Your task to perform on an android device: Open Google Maps and go to "Timeline" Image 0: 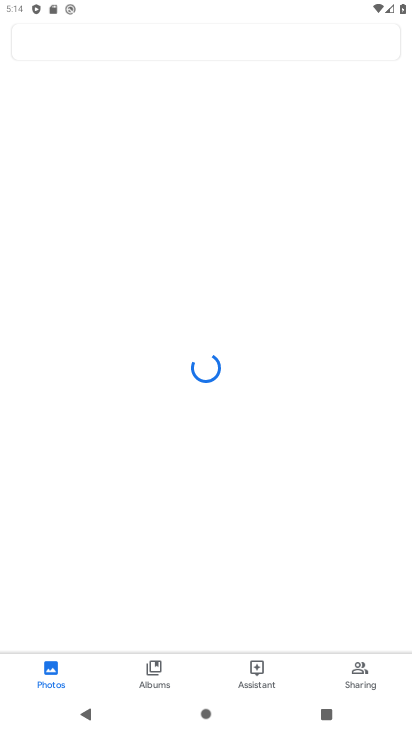
Step 0: press home button
Your task to perform on an android device: Open Google Maps and go to "Timeline" Image 1: 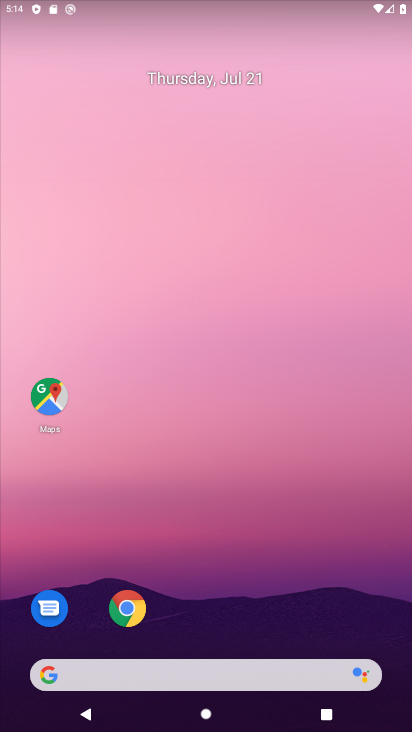
Step 1: click (51, 402)
Your task to perform on an android device: Open Google Maps and go to "Timeline" Image 2: 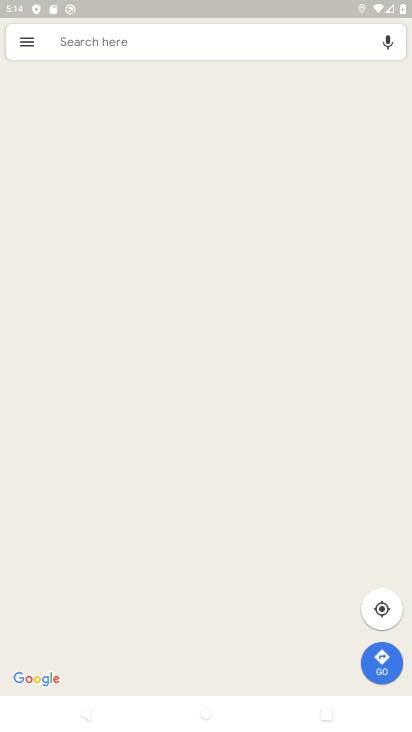
Step 2: click (24, 39)
Your task to perform on an android device: Open Google Maps and go to "Timeline" Image 3: 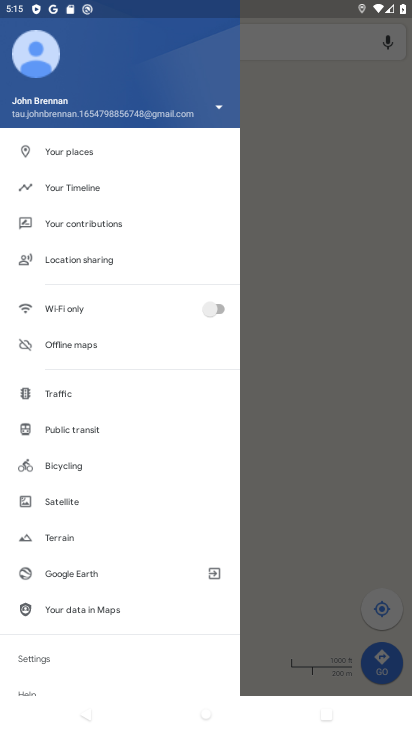
Step 3: click (76, 184)
Your task to perform on an android device: Open Google Maps and go to "Timeline" Image 4: 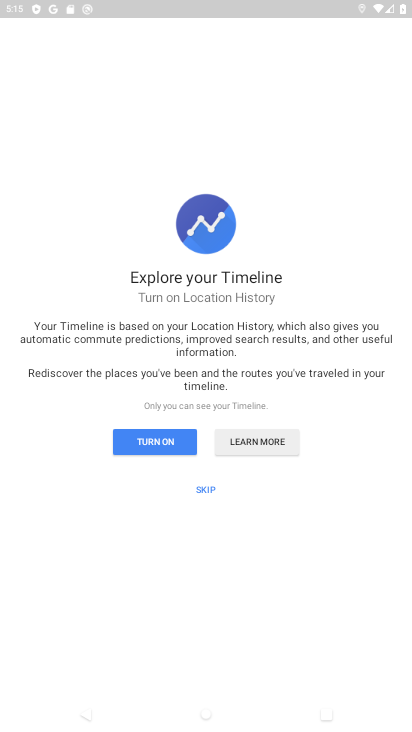
Step 4: click (168, 436)
Your task to perform on an android device: Open Google Maps and go to "Timeline" Image 5: 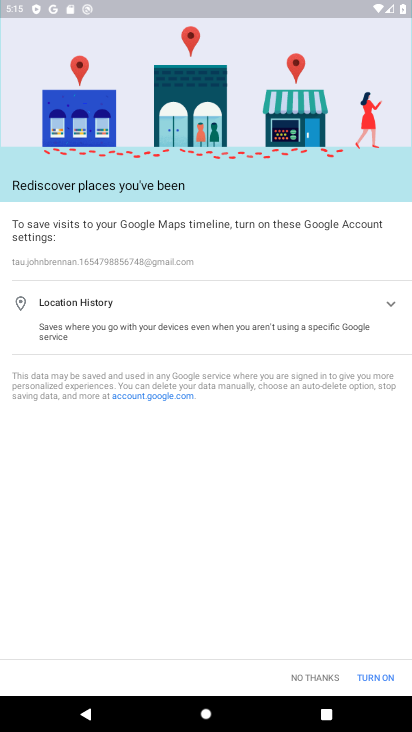
Step 5: click (380, 677)
Your task to perform on an android device: Open Google Maps and go to "Timeline" Image 6: 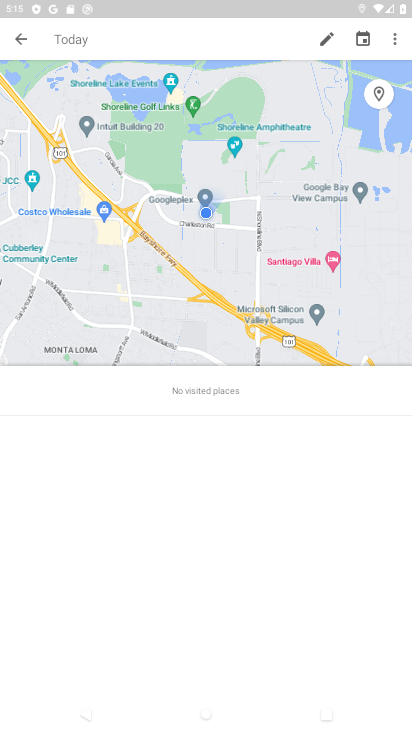
Step 6: task complete